Your task to perform on an android device: move an email to a new category in the gmail app Image 0: 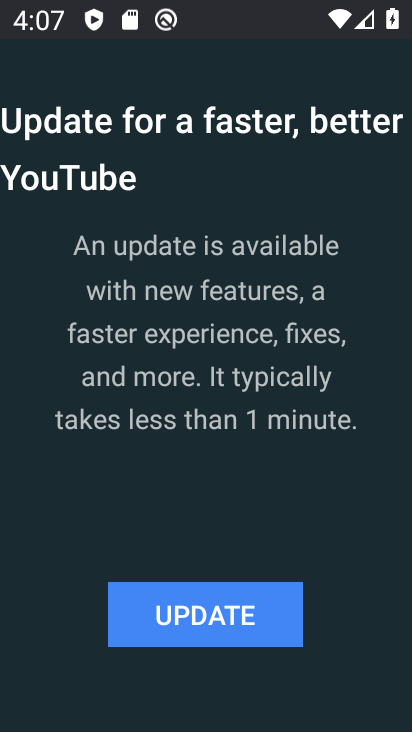
Step 0: press home button
Your task to perform on an android device: move an email to a new category in the gmail app Image 1: 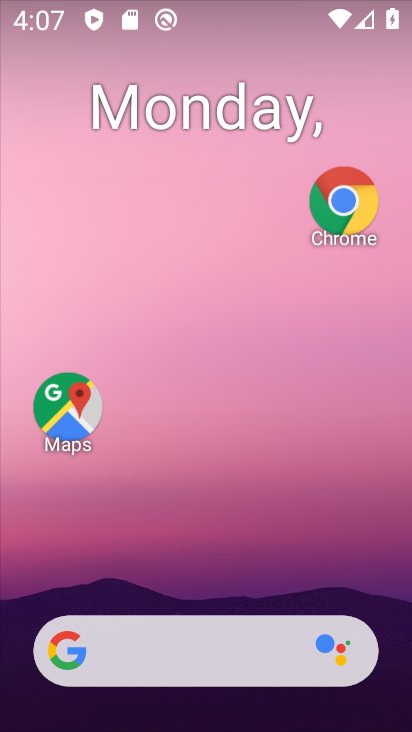
Step 1: drag from (305, 582) to (405, 410)
Your task to perform on an android device: move an email to a new category in the gmail app Image 2: 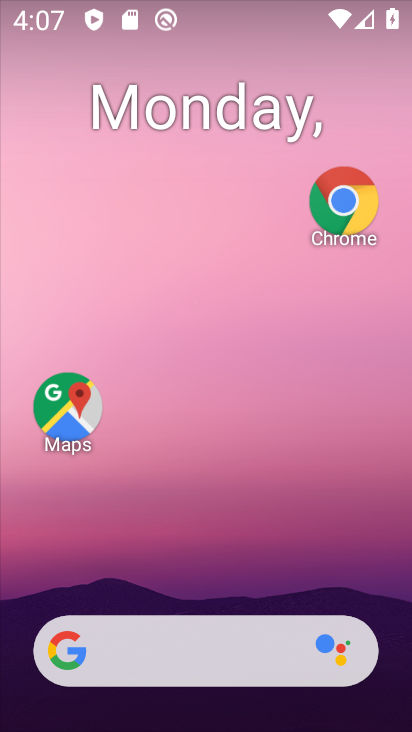
Step 2: drag from (232, 585) to (339, 276)
Your task to perform on an android device: move an email to a new category in the gmail app Image 3: 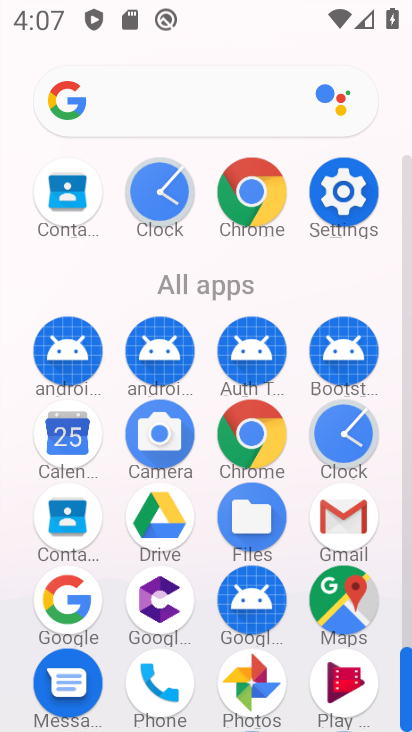
Step 3: click (343, 514)
Your task to perform on an android device: move an email to a new category in the gmail app Image 4: 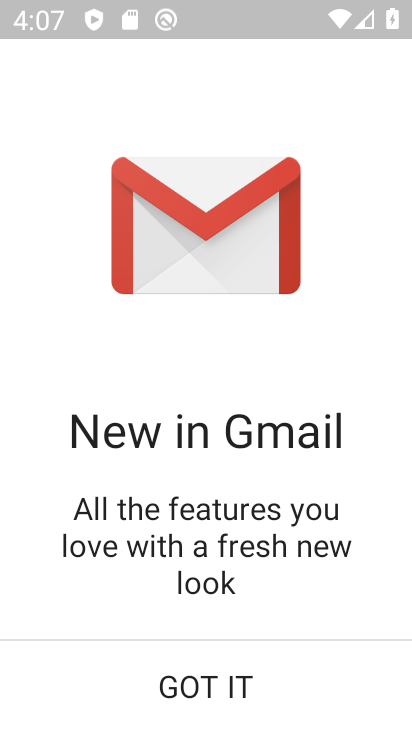
Step 4: click (213, 705)
Your task to perform on an android device: move an email to a new category in the gmail app Image 5: 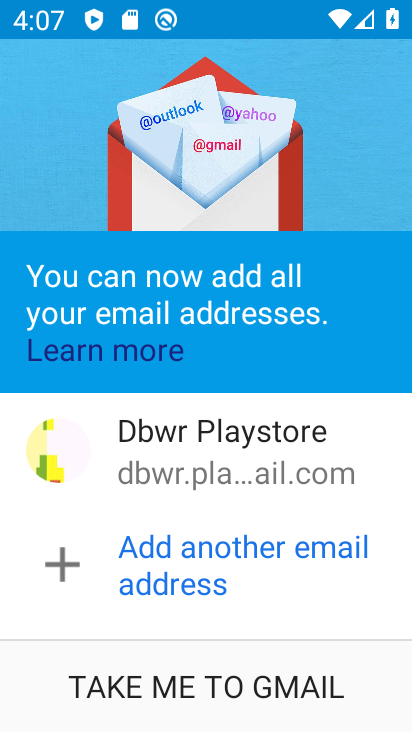
Step 5: click (236, 697)
Your task to perform on an android device: move an email to a new category in the gmail app Image 6: 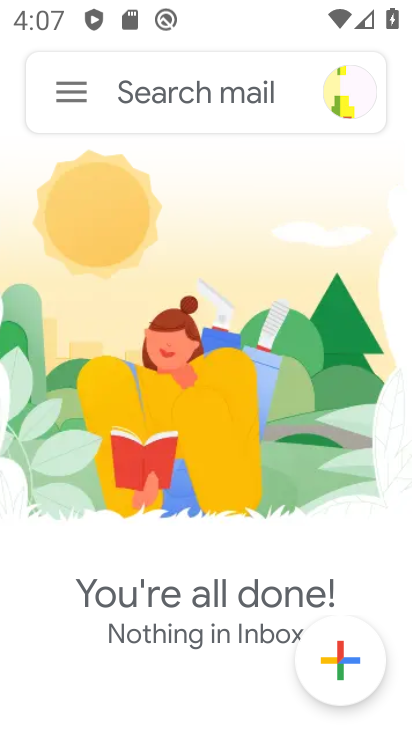
Step 6: task complete